Your task to perform on an android device: Empty the shopping cart on ebay.com. Add dell xps to the cart on ebay.com Image 0: 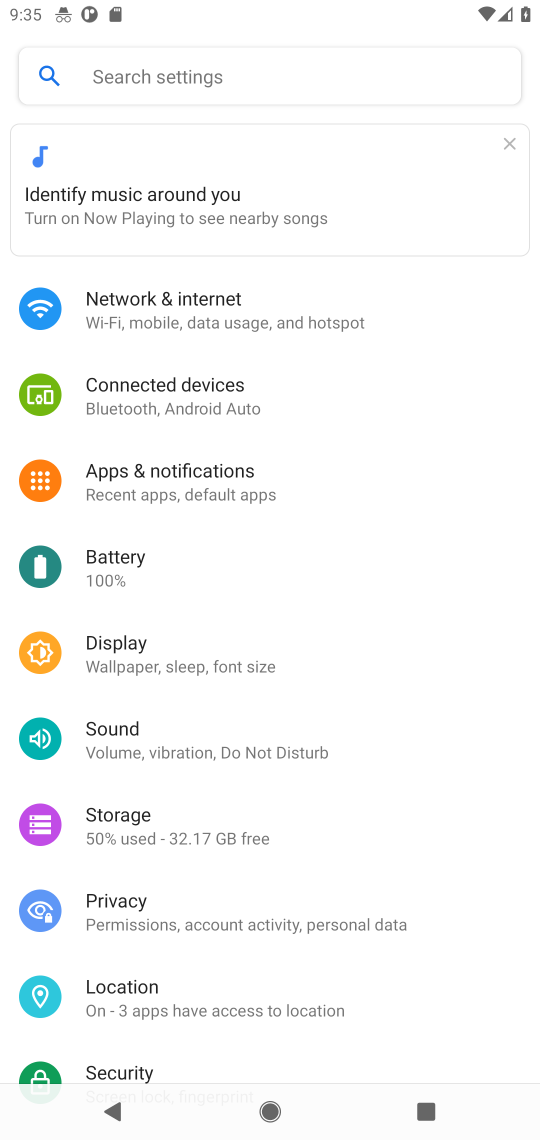
Step 0: press home button
Your task to perform on an android device: Empty the shopping cart on ebay.com. Add dell xps to the cart on ebay.com Image 1: 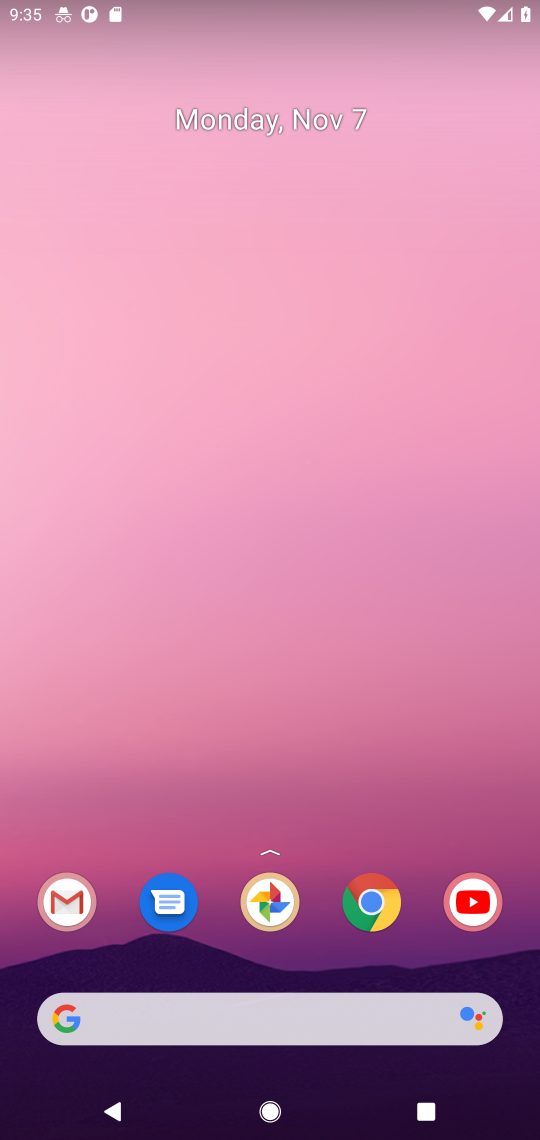
Step 1: click (367, 899)
Your task to perform on an android device: Empty the shopping cart on ebay.com. Add dell xps to the cart on ebay.com Image 2: 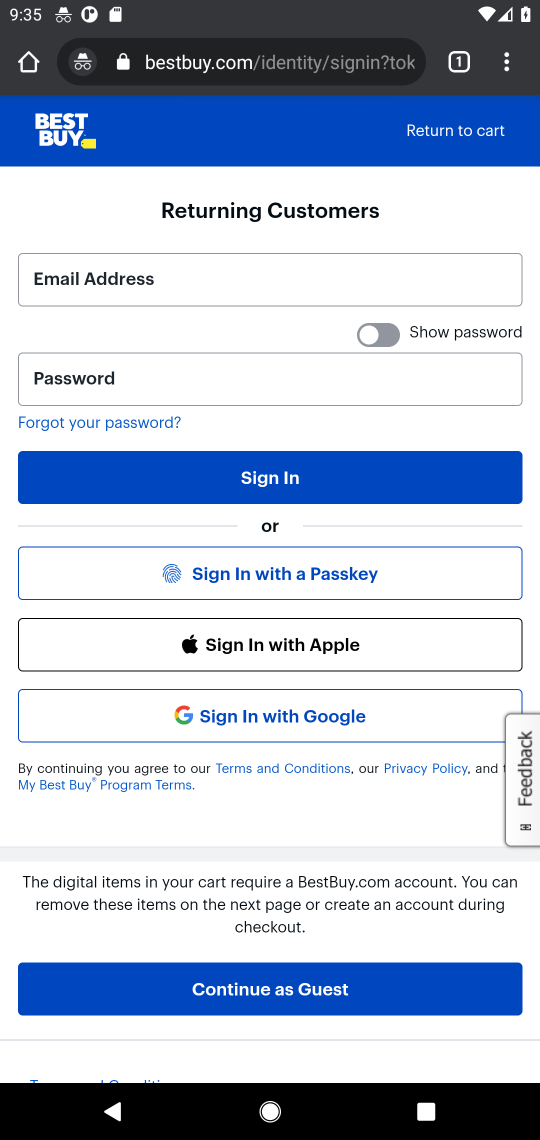
Step 2: click (212, 68)
Your task to perform on an android device: Empty the shopping cart on ebay.com. Add dell xps to the cart on ebay.com Image 3: 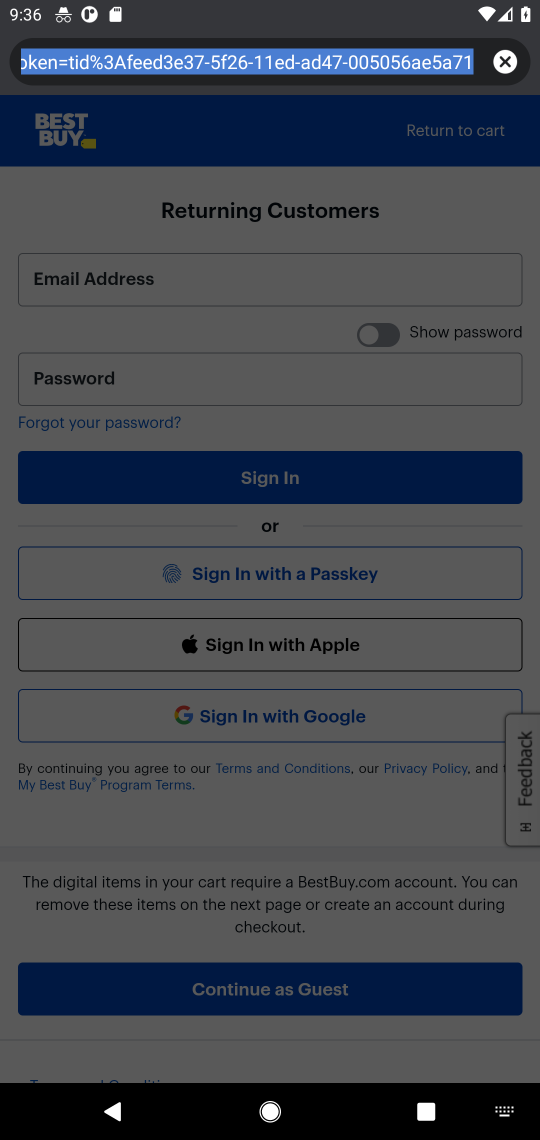
Step 3: type "ebay.com"
Your task to perform on an android device: Empty the shopping cart on ebay.com. Add dell xps to the cart on ebay.com Image 4: 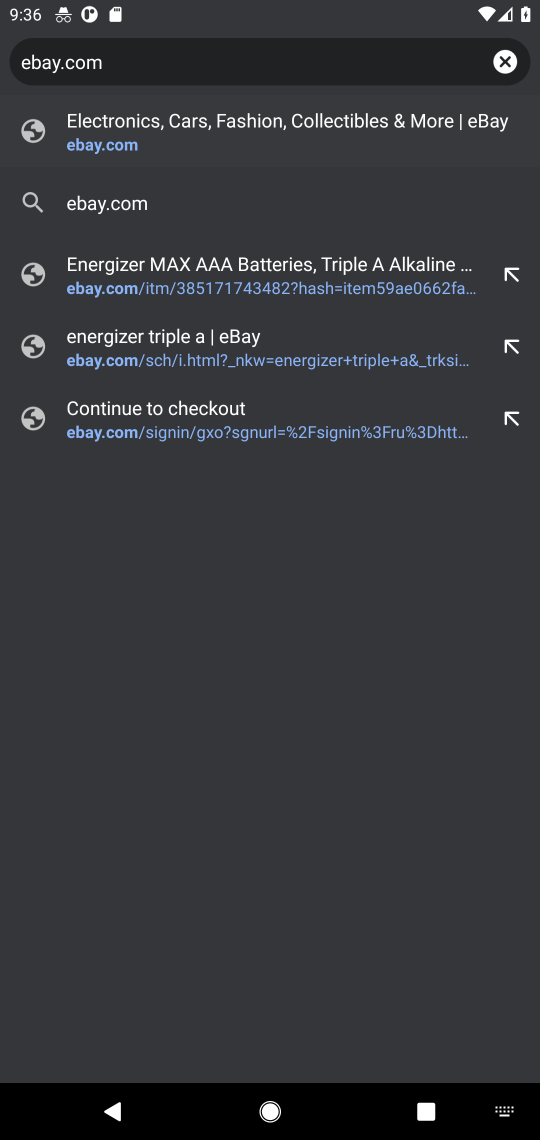
Step 4: click (127, 156)
Your task to perform on an android device: Empty the shopping cart on ebay.com. Add dell xps to the cart on ebay.com Image 5: 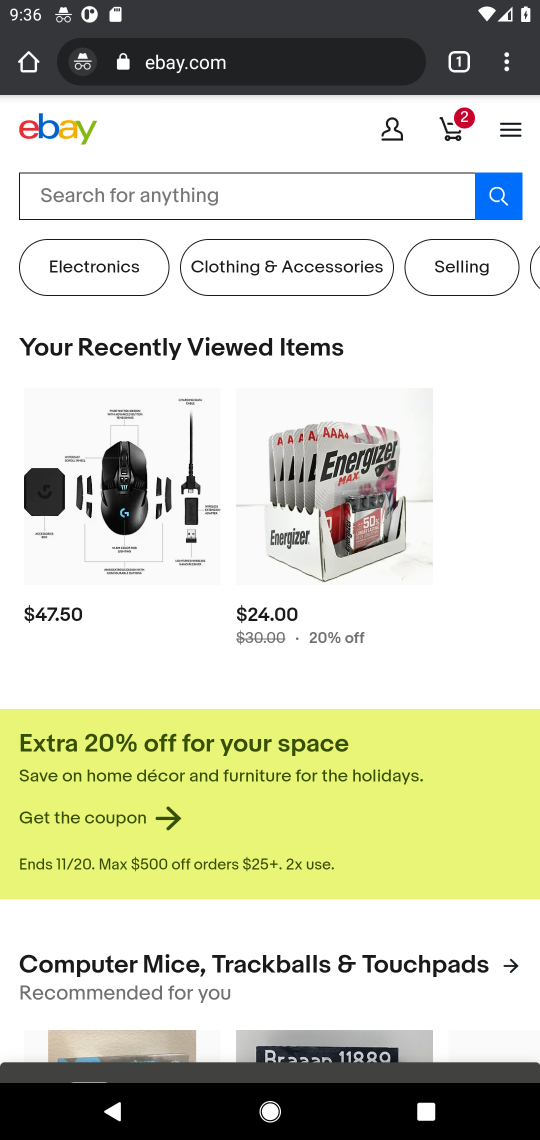
Step 5: click (451, 127)
Your task to perform on an android device: Empty the shopping cart on ebay.com. Add dell xps to the cart on ebay.com Image 6: 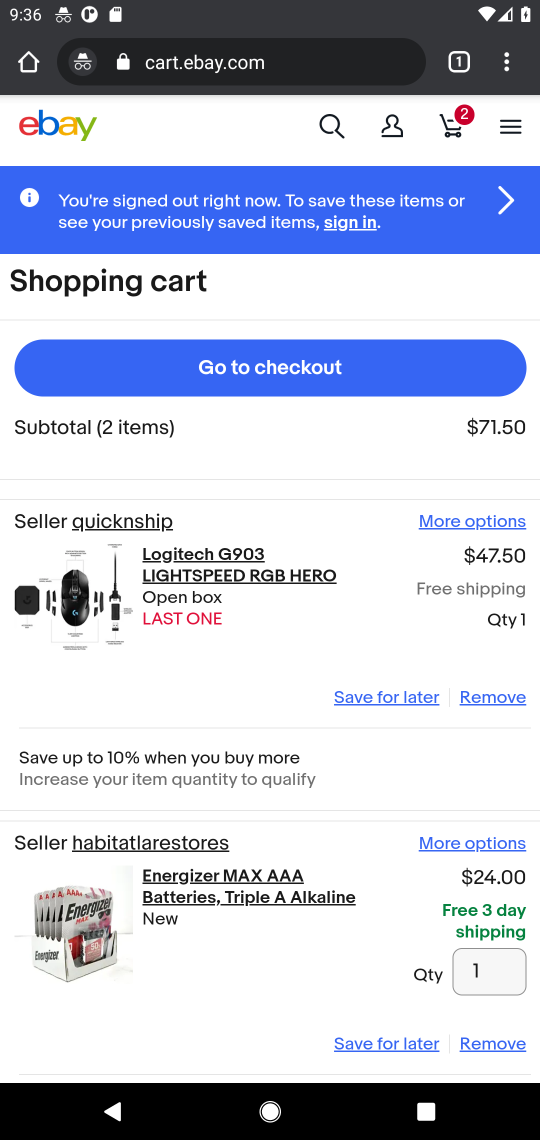
Step 6: click (483, 694)
Your task to perform on an android device: Empty the shopping cart on ebay.com. Add dell xps to the cart on ebay.com Image 7: 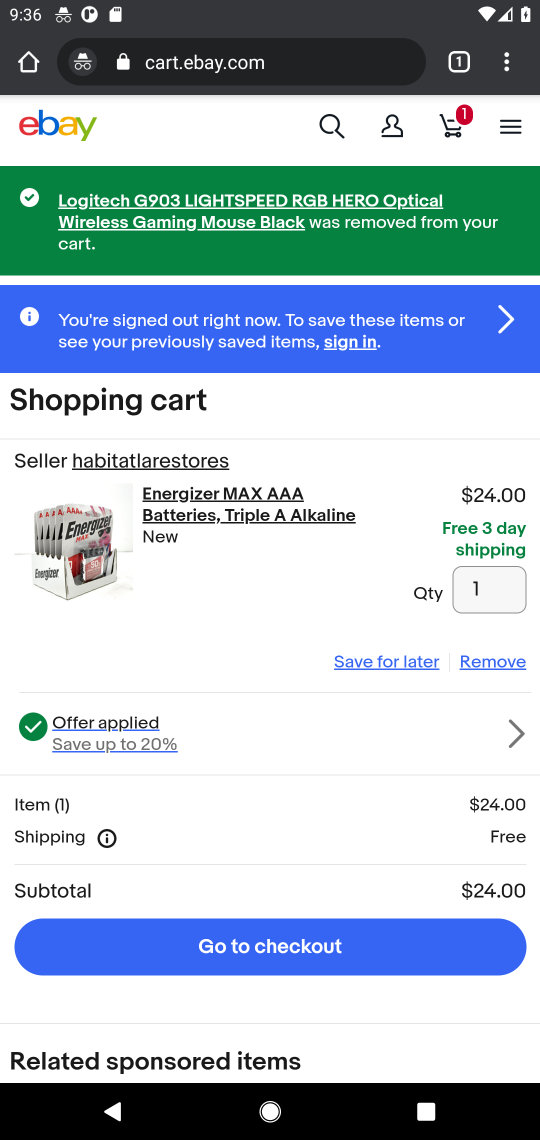
Step 7: click (485, 666)
Your task to perform on an android device: Empty the shopping cart on ebay.com. Add dell xps to the cart on ebay.com Image 8: 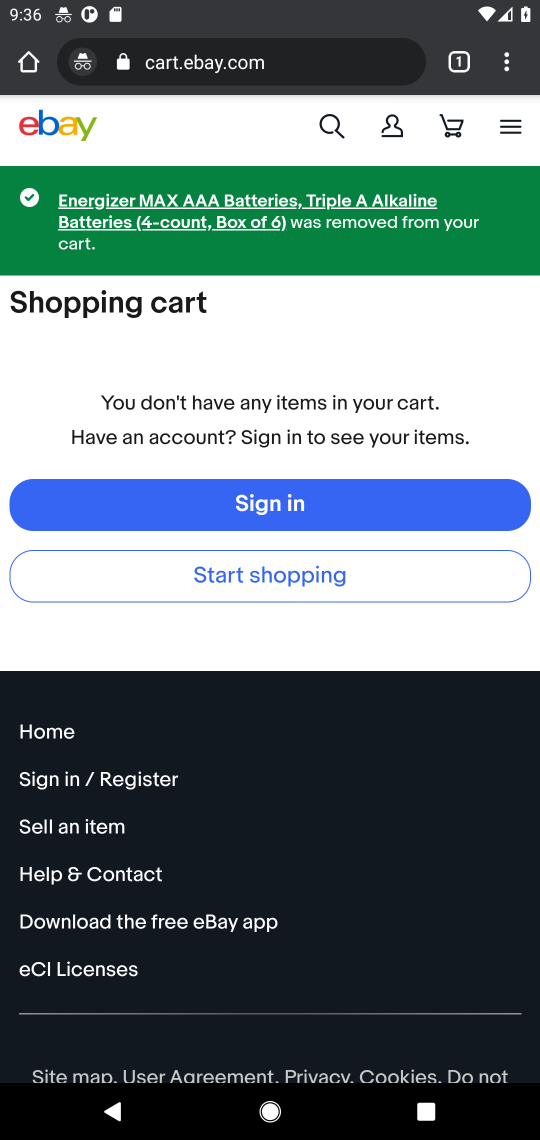
Step 8: click (321, 133)
Your task to perform on an android device: Empty the shopping cart on ebay.com. Add dell xps to the cart on ebay.com Image 9: 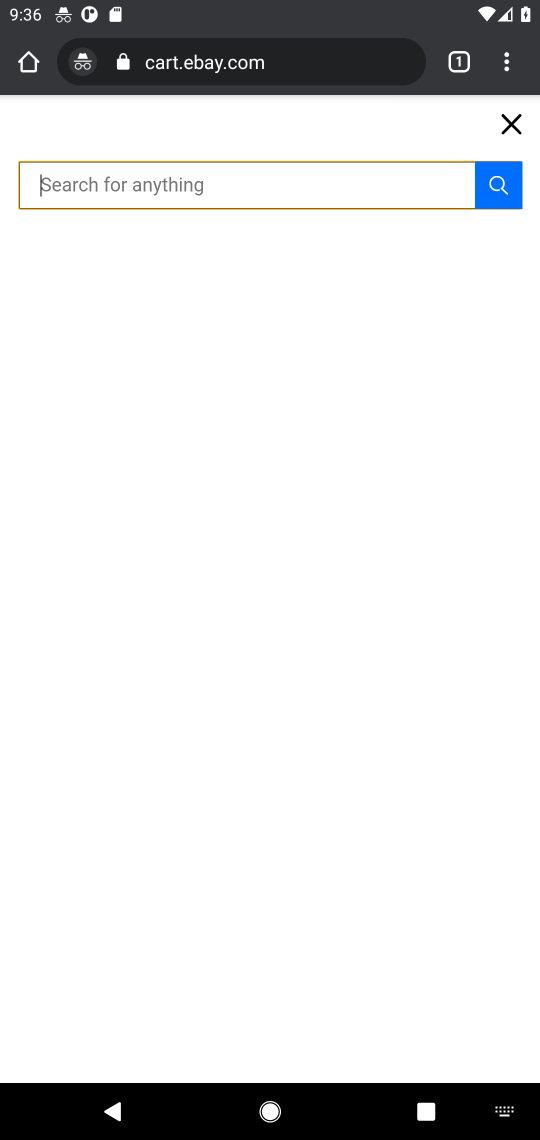
Step 9: type "dell xps"
Your task to perform on an android device: Empty the shopping cart on ebay.com. Add dell xps to the cart on ebay.com Image 10: 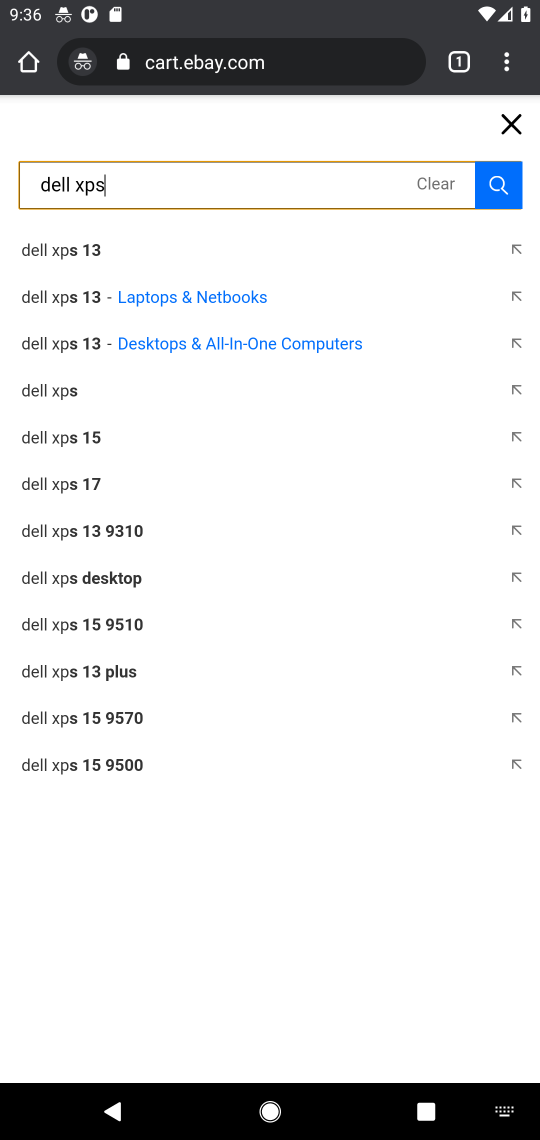
Step 10: click (66, 387)
Your task to perform on an android device: Empty the shopping cart on ebay.com. Add dell xps to the cart on ebay.com Image 11: 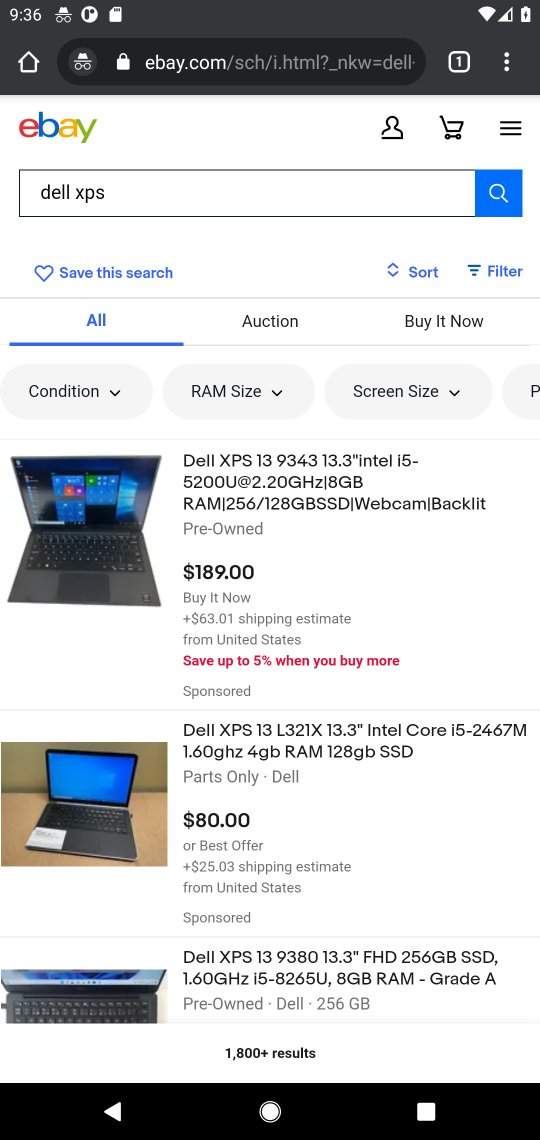
Step 11: click (100, 492)
Your task to perform on an android device: Empty the shopping cart on ebay.com. Add dell xps to the cart on ebay.com Image 12: 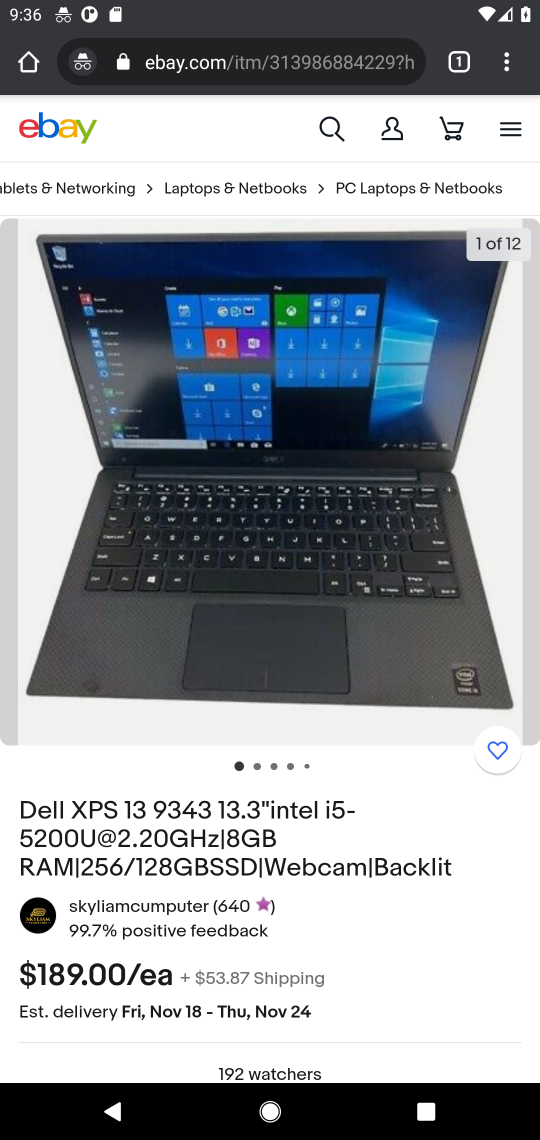
Step 12: drag from (278, 867) to (252, 593)
Your task to perform on an android device: Empty the shopping cart on ebay.com. Add dell xps to the cart on ebay.com Image 13: 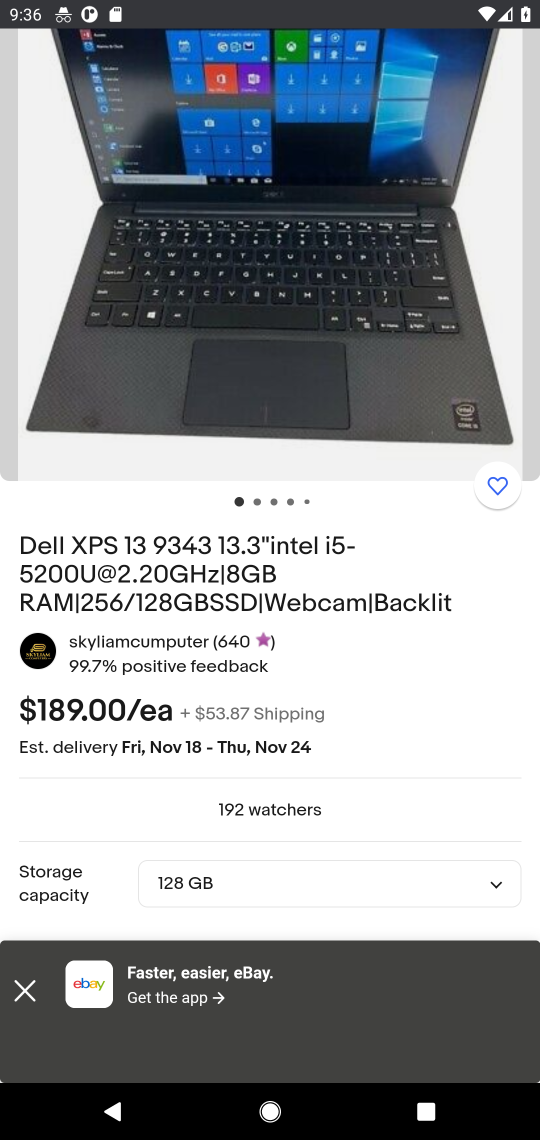
Step 13: drag from (250, 810) to (207, 428)
Your task to perform on an android device: Empty the shopping cart on ebay.com. Add dell xps to the cart on ebay.com Image 14: 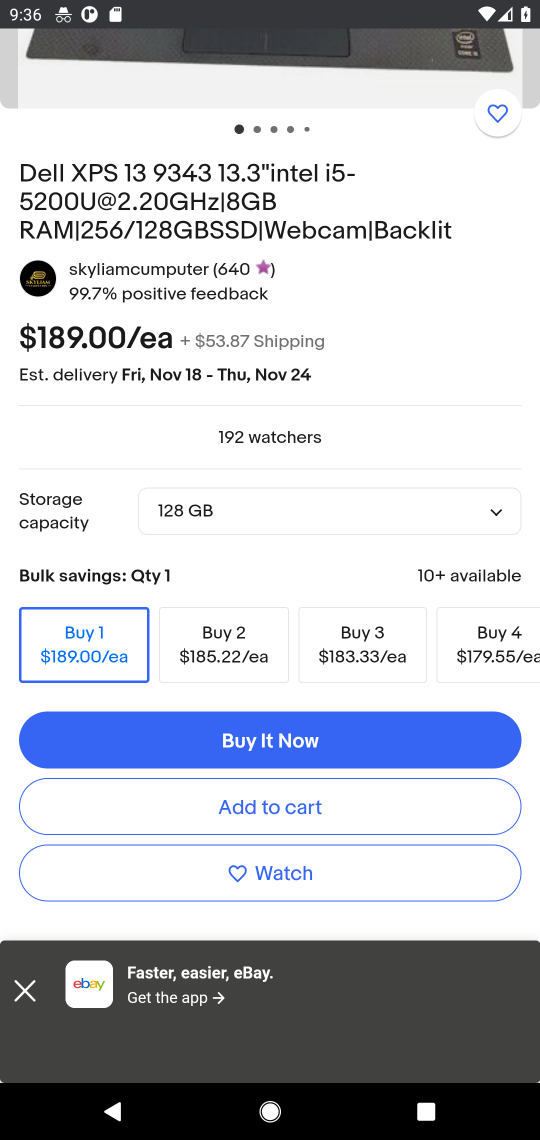
Step 14: click (224, 801)
Your task to perform on an android device: Empty the shopping cart on ebay.com. Add dell xps to the cart on ebay.com Image 15: 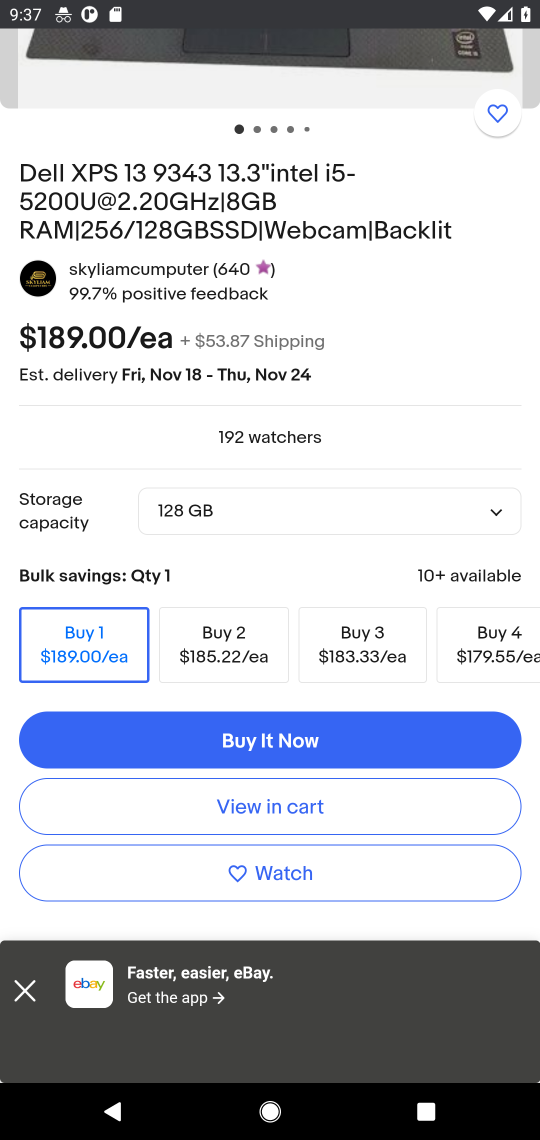
Step 15: task complete